Your task to perform on an android device: What's on the menu at Olive Garden? Image 0: 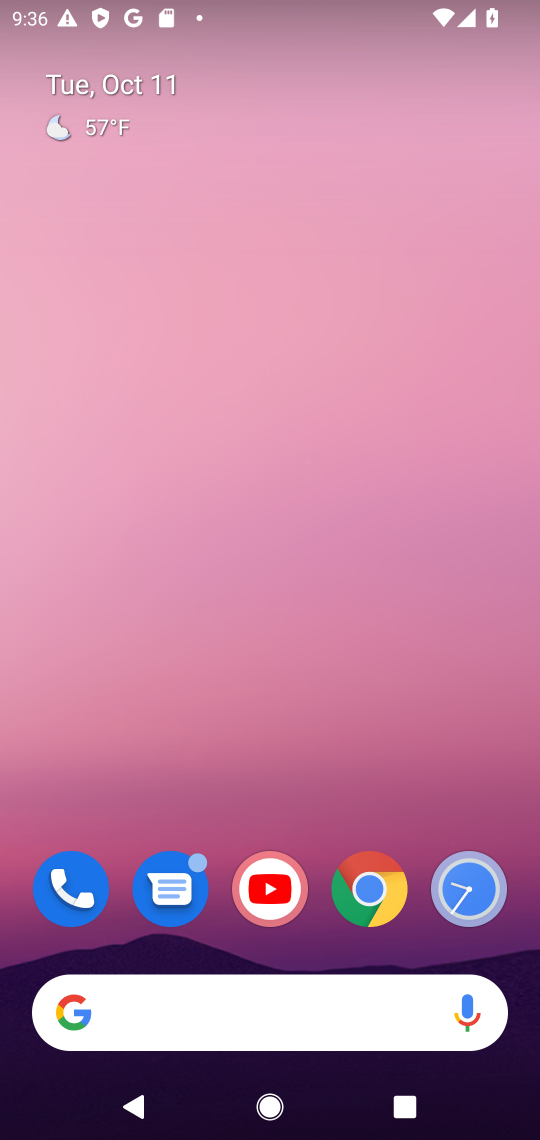
Step 0: click (209, 995)
Your task to perform on an android device: What's on the menu at Olive Garden? Image 1: 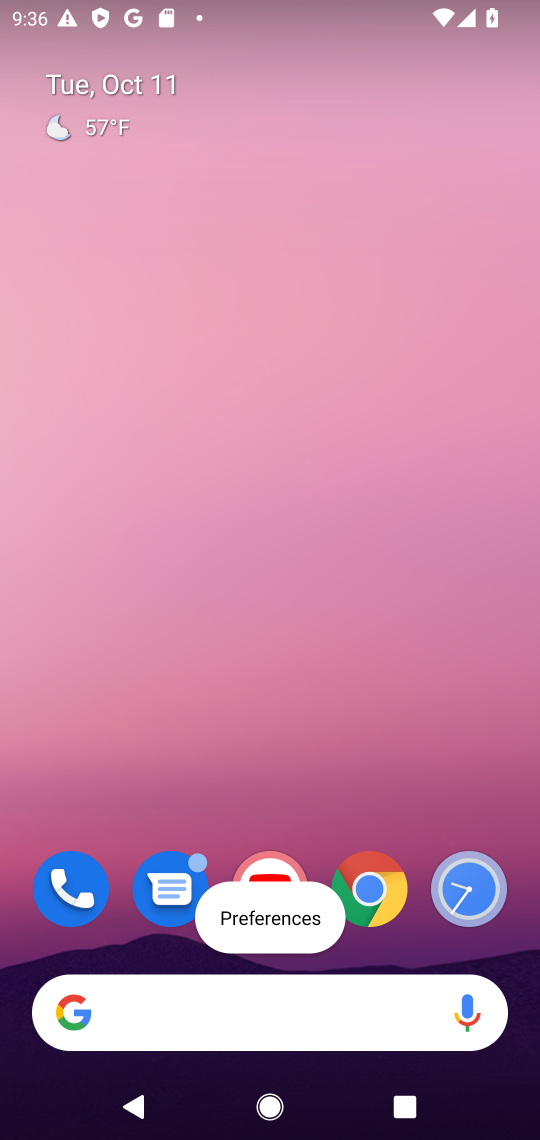
Step 1: click (204, 1032)
Your task to perform on an android device: What's on the menu at Olive Garden? Image 2: 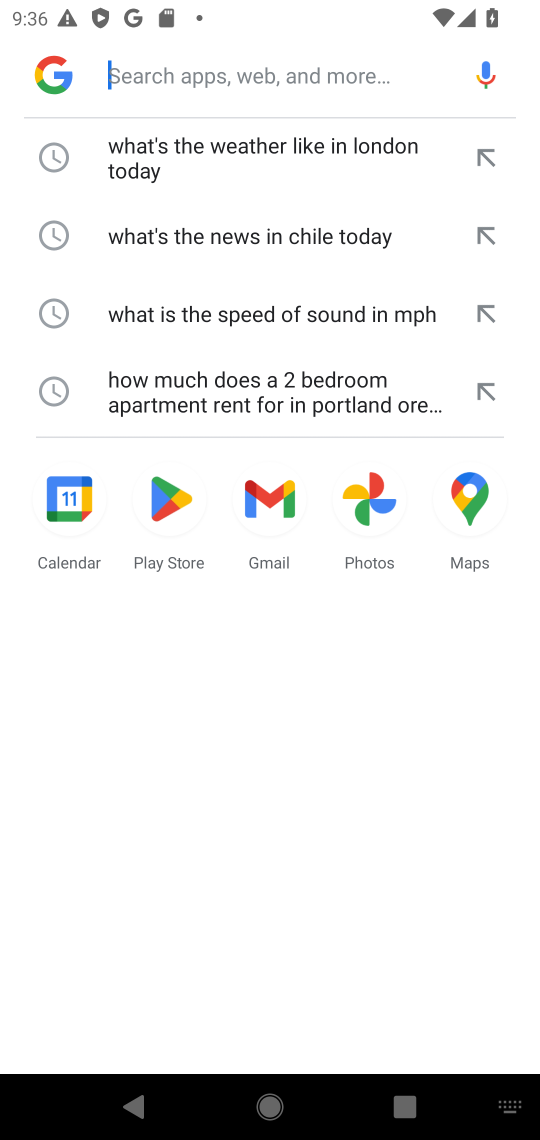
Step 2: click (213, 73)
Your task to perform on an android device: What's on the menu at Olive Garden? Image 3: 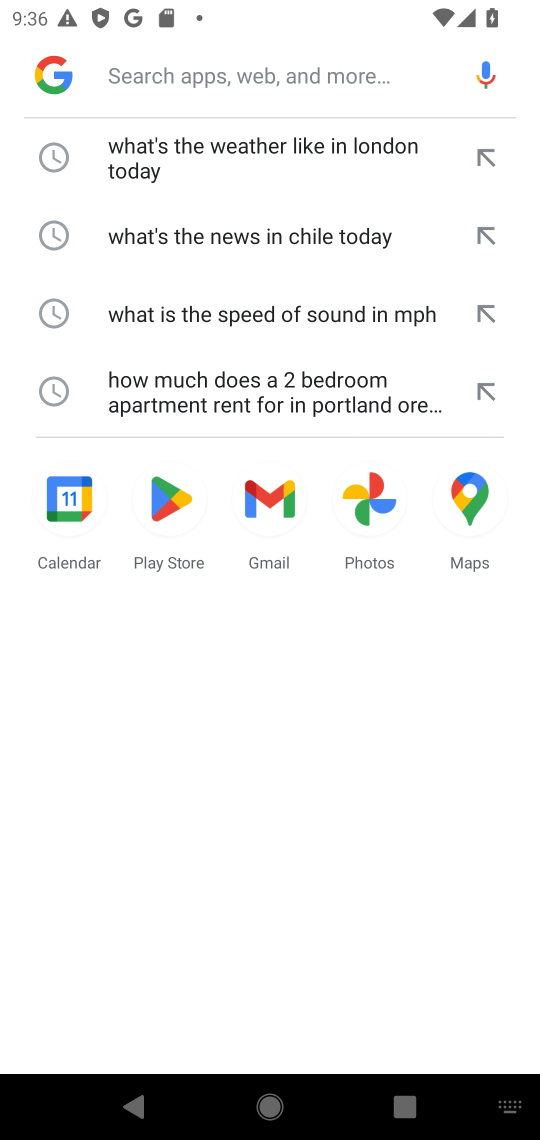
Step 3: type "What's on the menu at Olive Garden?"
Your task to perform on an android device: What's on the menu at Olive Garden? Image 4: 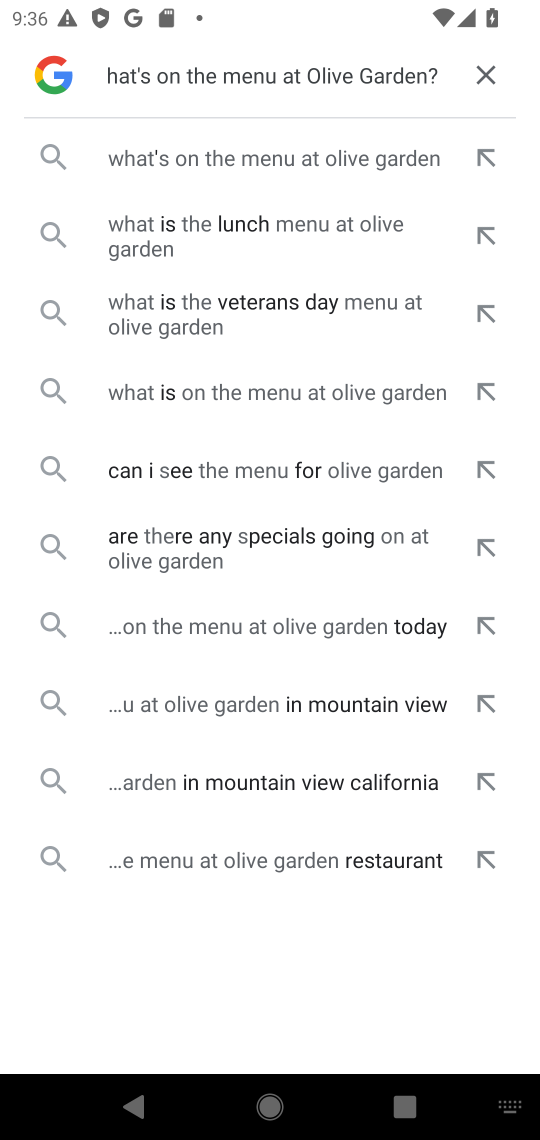
Step 4: click (256, 167)
Your task to perform on an android device: What's on the menu at Olive Garden? Image 5: 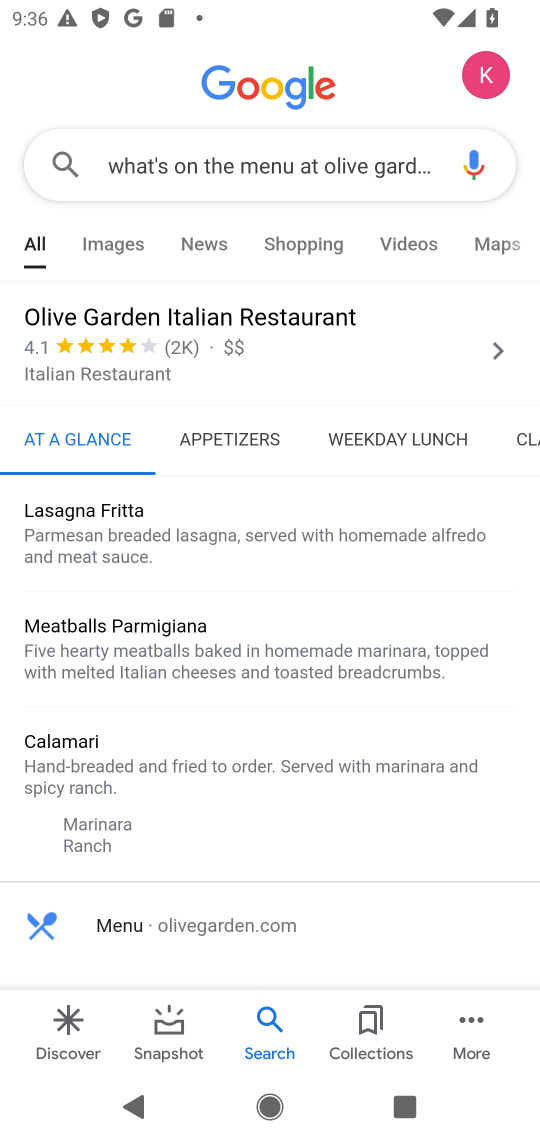
Step 5: task complete